Your task to perform on an android device: choose inbox layout in the gmail app Image 0: 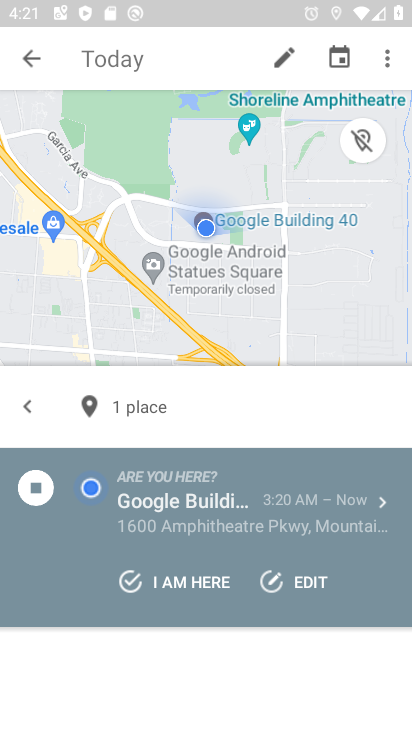
Step 0: press home button
Your task to perform on an android device: choose inbox layout in the gmail app Image 1: 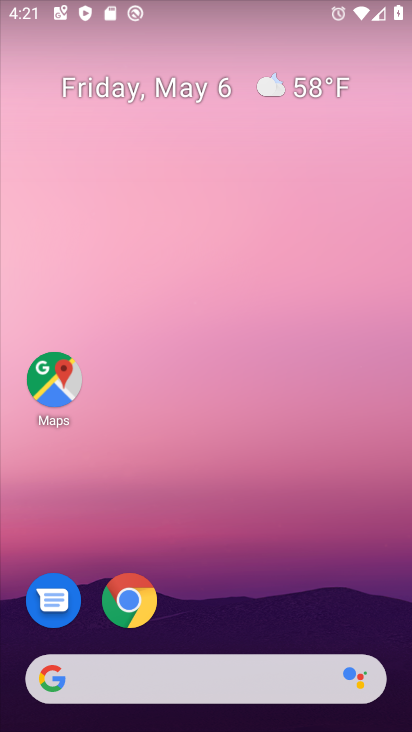
Step 1: drag from (239, 637) to (228, 100)
Your task to perform on an android device: choose inbox layout in the gmail app Image 2: 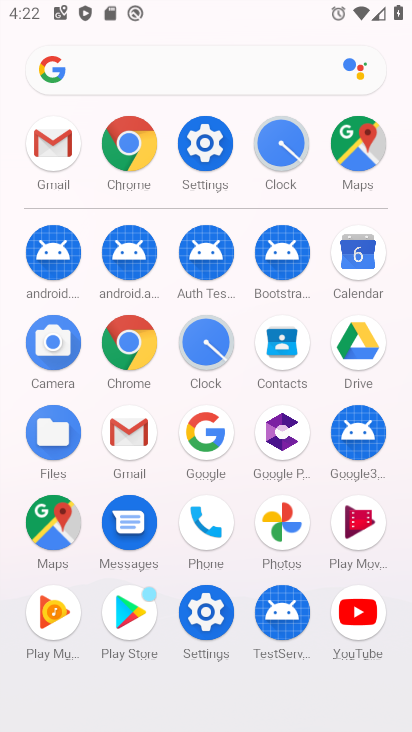
Step 2: click (136, 440)
Your task to perform on an android device: choose inbox layout in the gmail app Image 3: 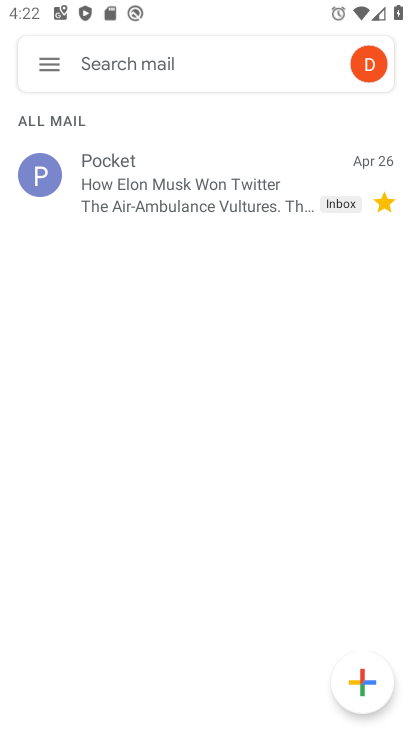
Step 3: click (64, 78)
Your task to perform on an android device: choose inbox layout in the gmail app Image 4: 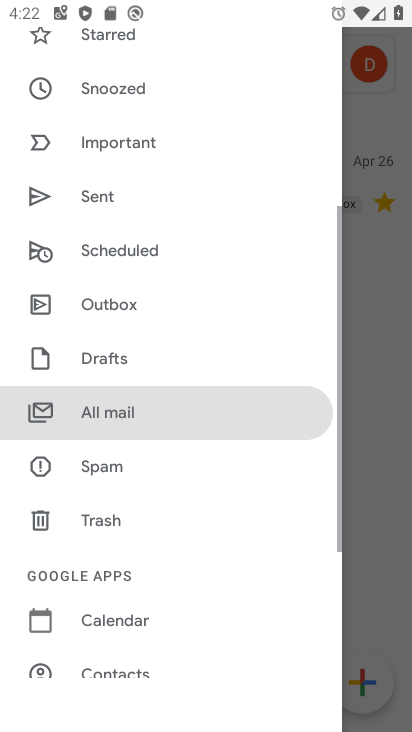
Step 4: drag from (138, 572) to (241, 259)
Your task to perform on an android device: choose inbox layout in the gmail app Image 5: 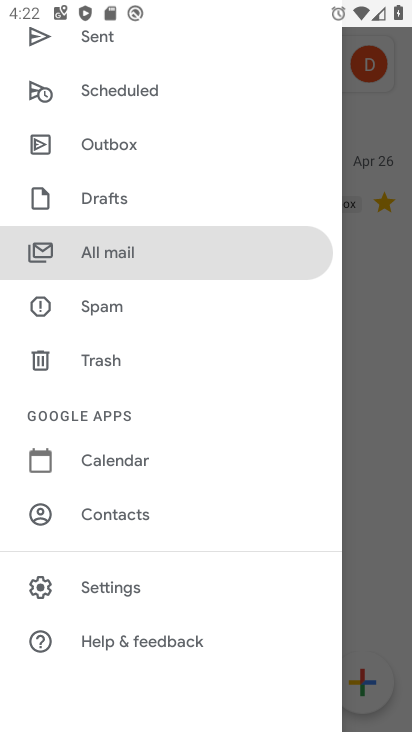
Step 5: click (111, 573)
Your task to perform on an android device: choose inbox layout in the gmail app Image 6: 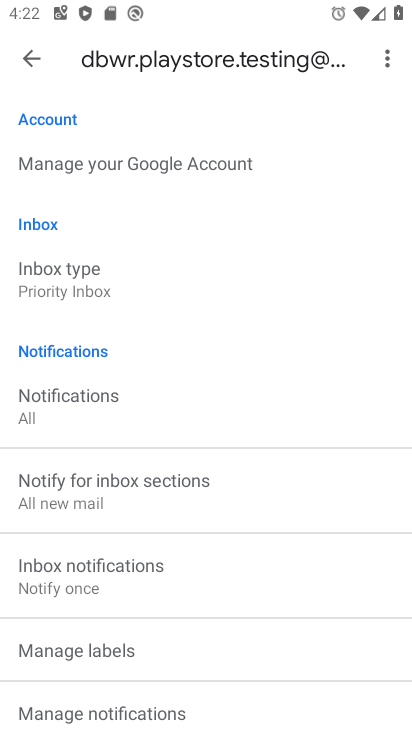
Step 6: click (92, 285)
Your task to perform on an android device: choose inbox layout in the gmail app Image 7: 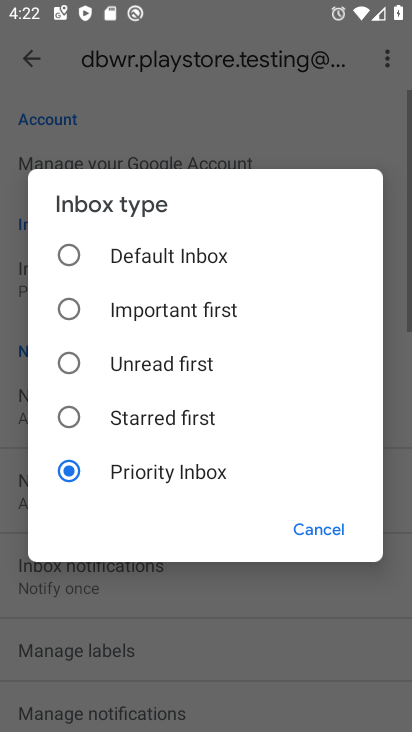
Step 7: click (100, 258)
Your task to perform on an android device: choose inbox layout in the gmail app Image 8: 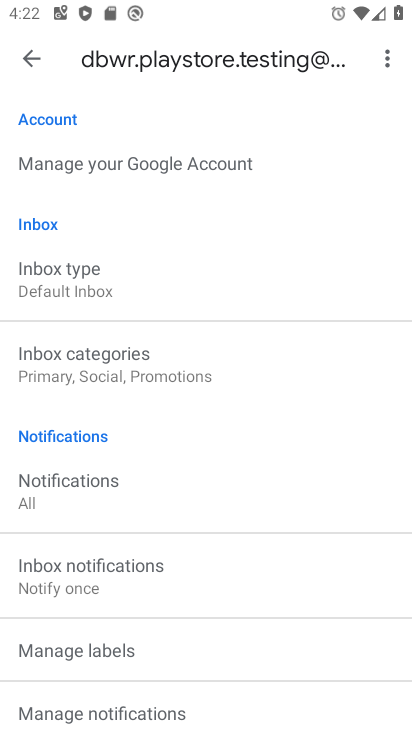
Step 8: task complete